Your task to perform on an android device: Open display settings Image 0: 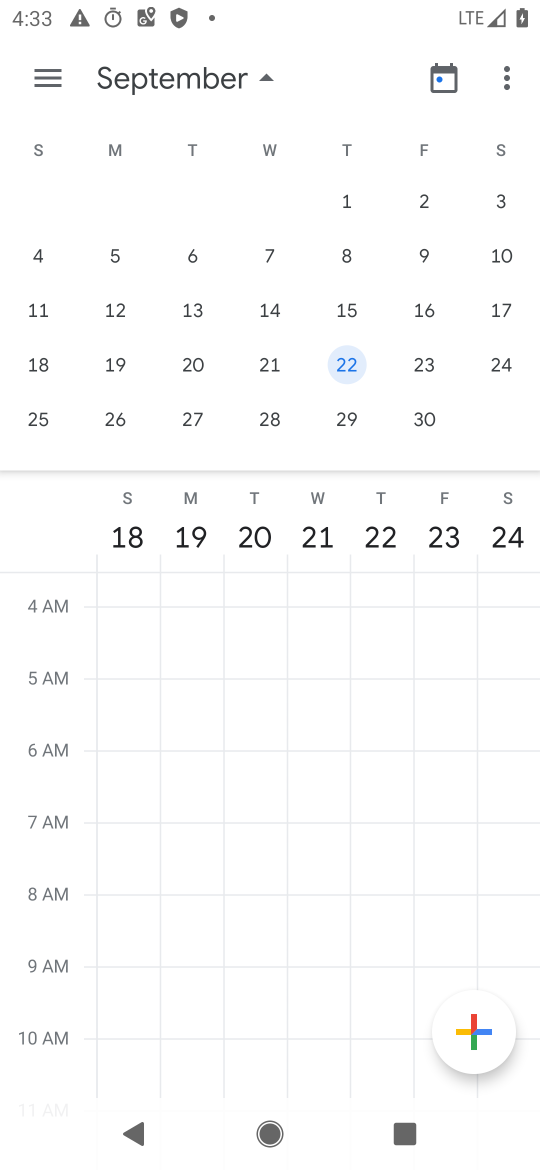
Step 0: press home button
Your task to perform on an android device: Open display settings Image 1: 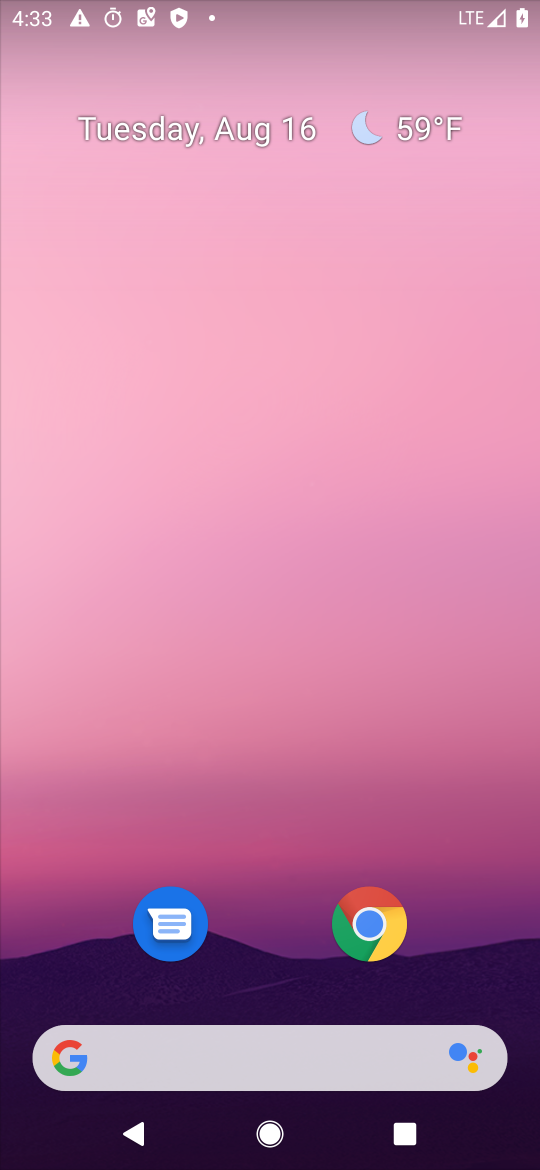
Step 1: drag from (293, 870) to (259, 276)
Your task to perform on an android device: Open display settings Image 2: 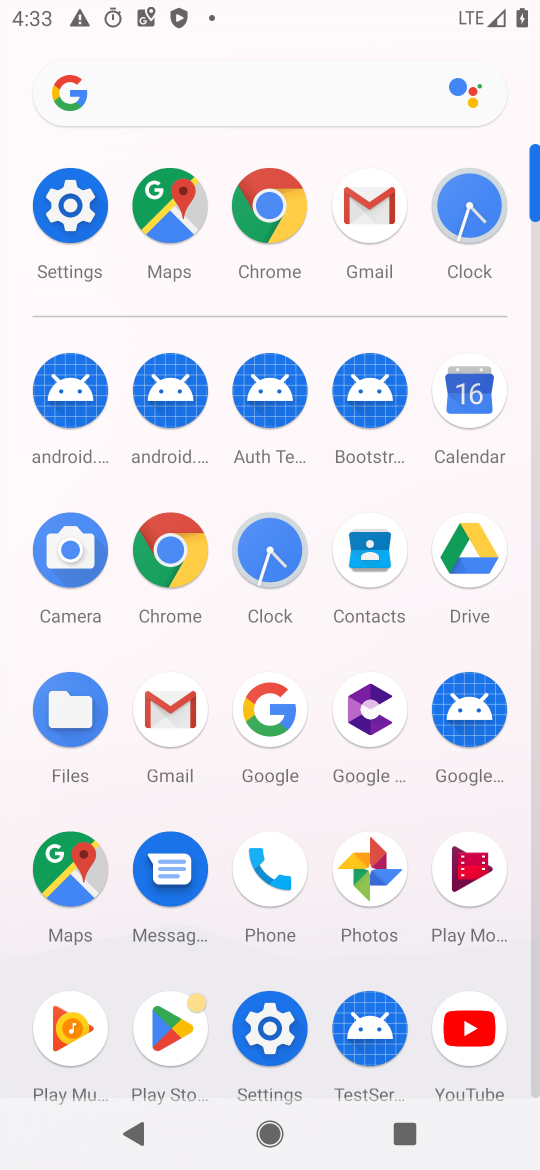
Step 2: click (75, 250)
Your task to perform on an android device: Open display settings Image 3: 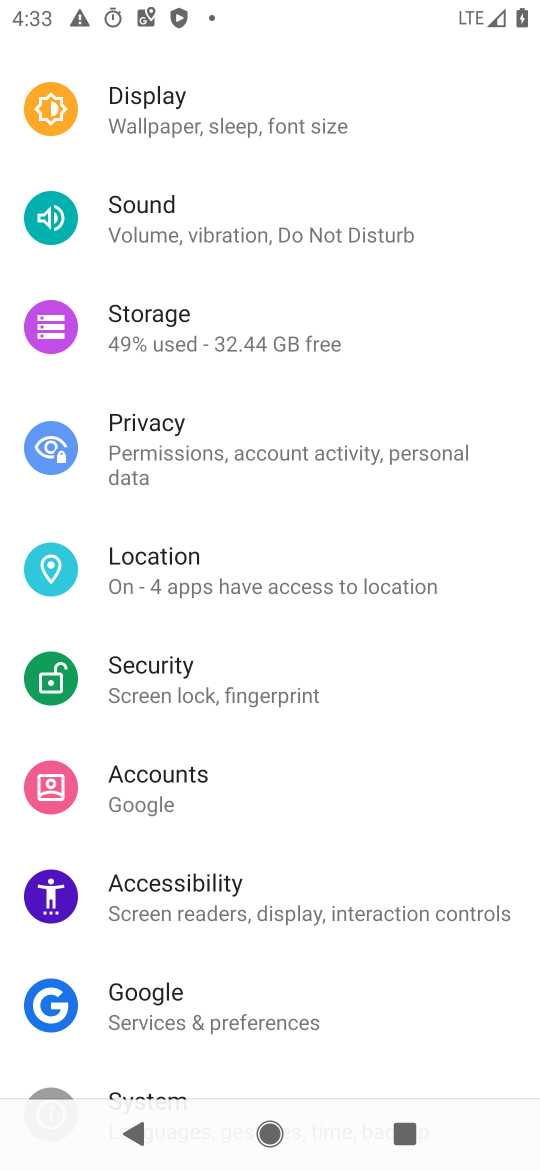
Step 3: click (223, 149)
Your task to perform on an android device: Open display settings Image 4: 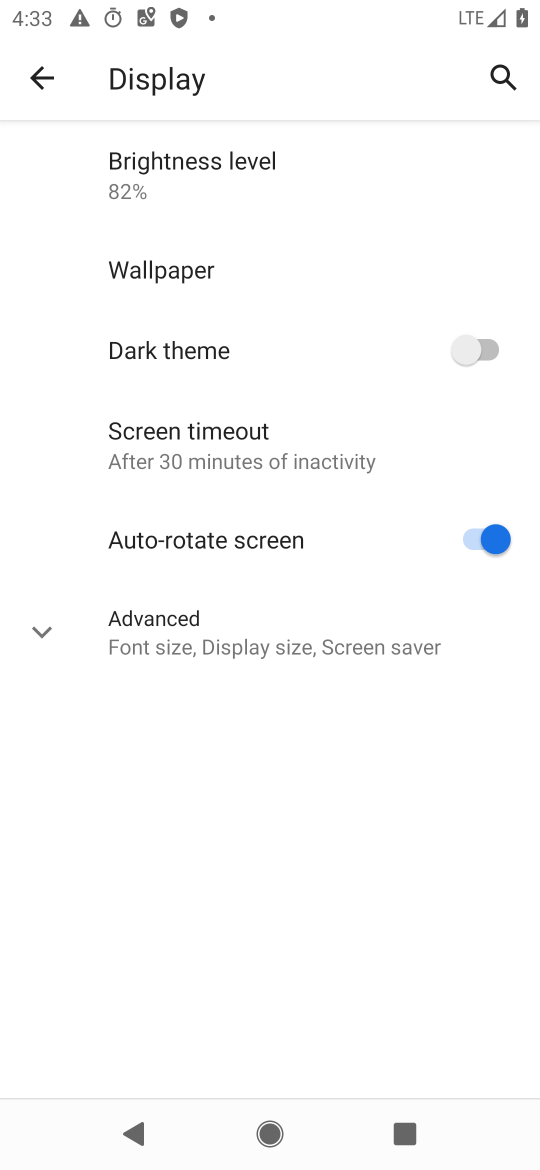
Step 4: task complete